Your task to perform on an android device: open app "The Home Depot" Image 0: 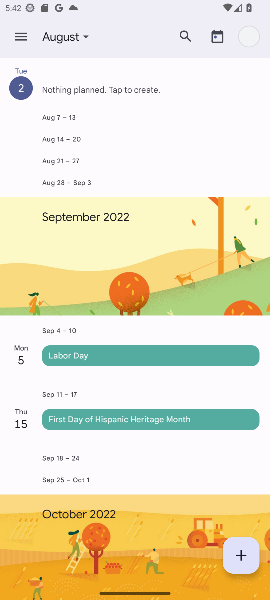
Step 0: press home button
Your task to perform on an android device: open app "The Home Depot" Image 1: 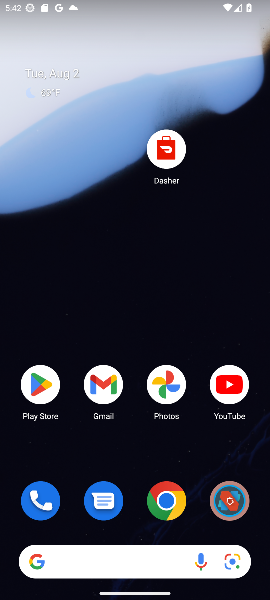
Step 1: click (37, 389)
Your task to perform on an android device: open app "The Home Depot" Image 2: 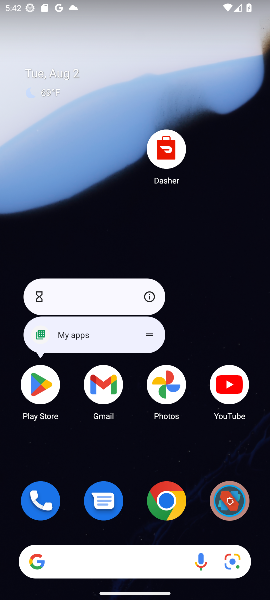
Step 2: click (41, 394)
Your task to perform on an android device: open app "The Home Depot" Image 3: 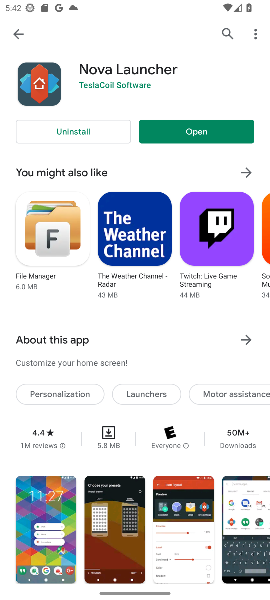
Step 3: click (223, 32)
Your task to perform on an android device: open app "The Home Depot" Image 4: 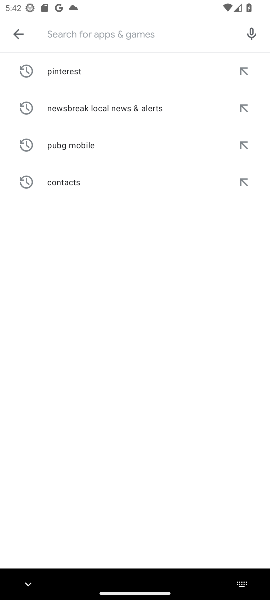
Step 4: type "The Home Depot"
Your task to perform on an android device: open app "The Home Depot" Image 5: 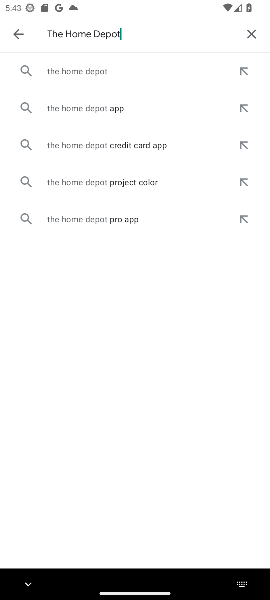
Step 5: click (49, 71)
Your task to perform on an android device: open app "The Home Depot" Image 6: 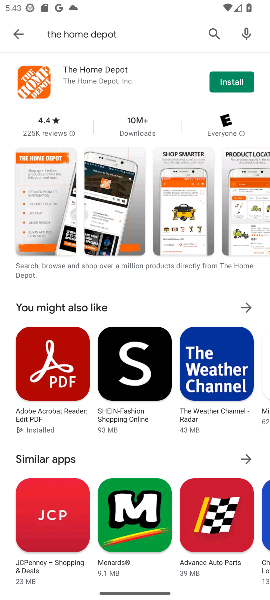
Step 6: task complete